Your task to perform on an android device: open the mobile data screen to see how much data has been used Image 0: 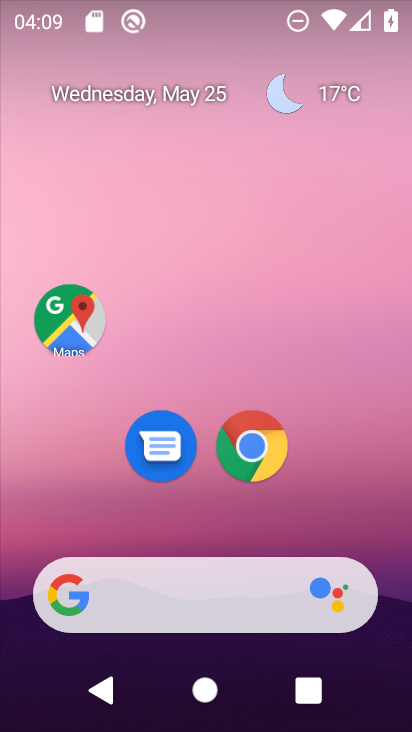
Step 0: drag from (185, 552) to (156, 107)
Your task to perform on an android device: open the mobile data screen to see how much data has been used Image 1: 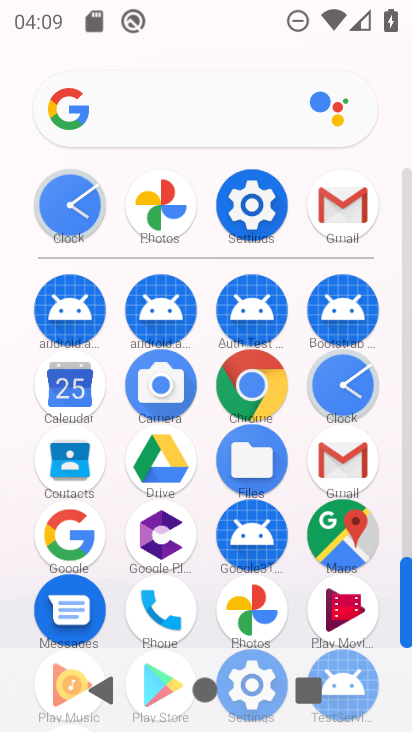
Step 1: click (253, 192)
Your task to perform on an android device: open the mobile data screen to see how much data has been used Image 2: 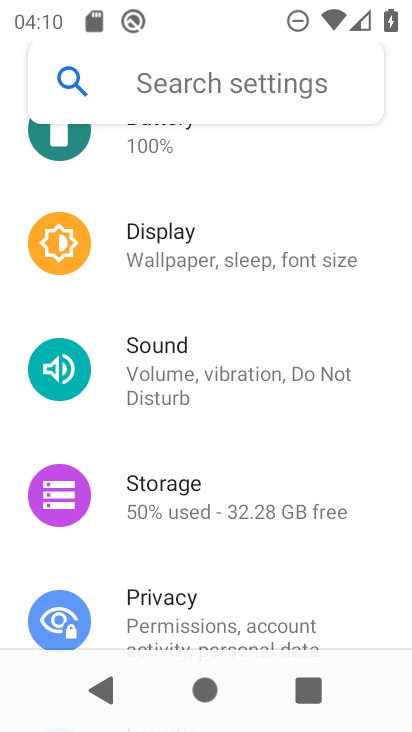
Step 2: drag from (187, 188) to (205, 729)
Your task to perform on an android device: open the mobile data screen to see how much data has been used Image 3: 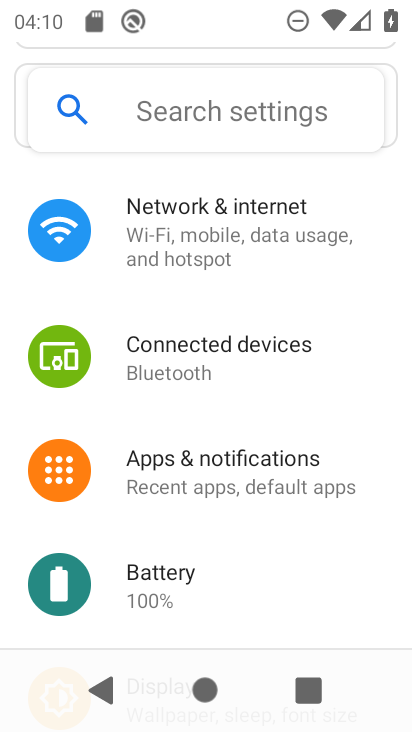
Step 3: click (191, 247)
Your task to perform on an android device: open the mobile data screen to see how much data has been used Image 4: 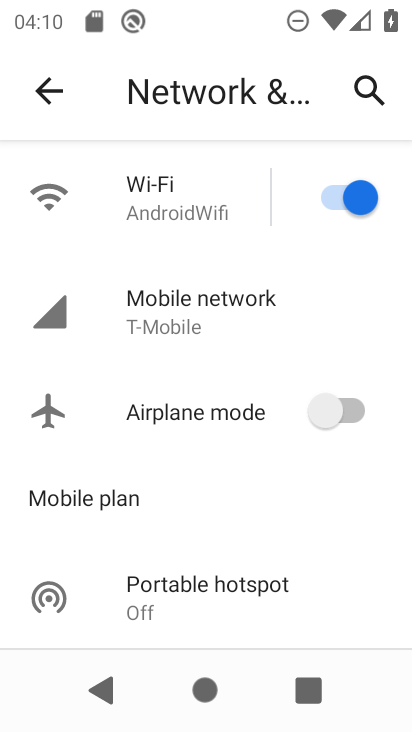
Step 4: click (181, 313)
Your task to perform on an android device: open the mobile data screen to see how much data has been used Image 5: 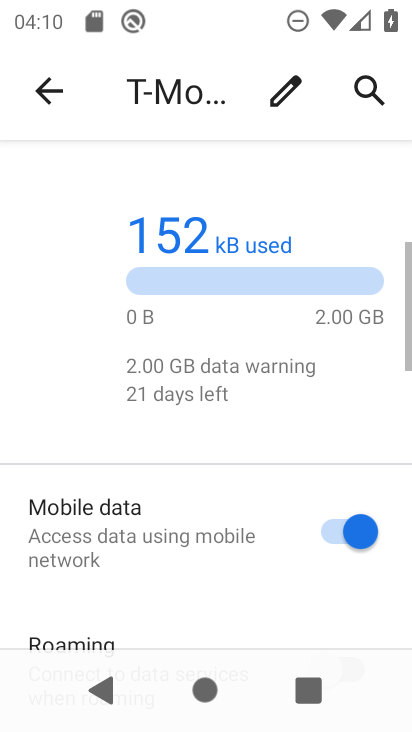
Step 5: task complete